Your task to perform on an android device: change alarm snooze length Image 0: 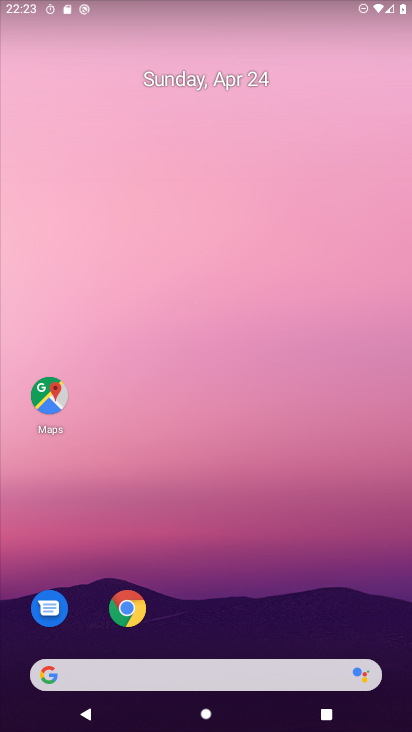
Step 0: drag from (320, 572) to (289, 2)
Your task to perform on an android device: change alarm snooze length Image 1: 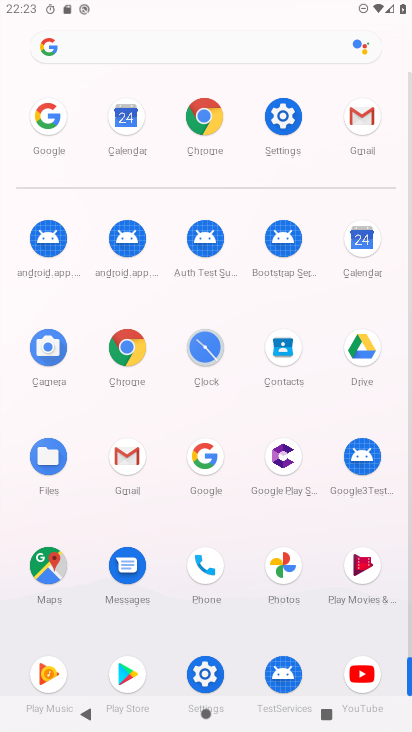
Step 1: click (215, 346)
Your task to perform on an android device: change alarm snooze length Image 2: 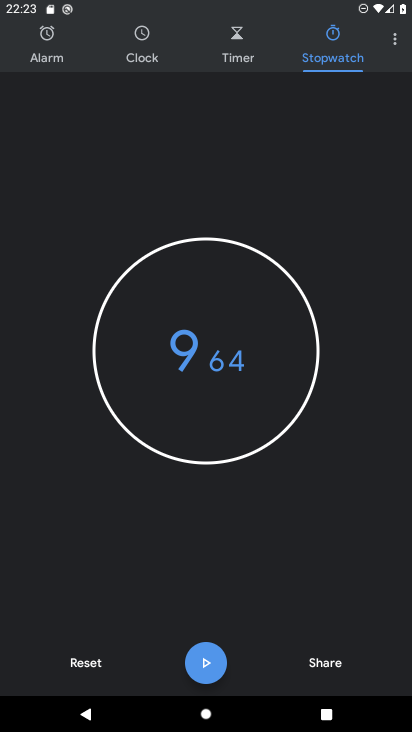
Step 2: click (394, 36)
Your task to perform on an android device: change alarm snooze length Image 3: 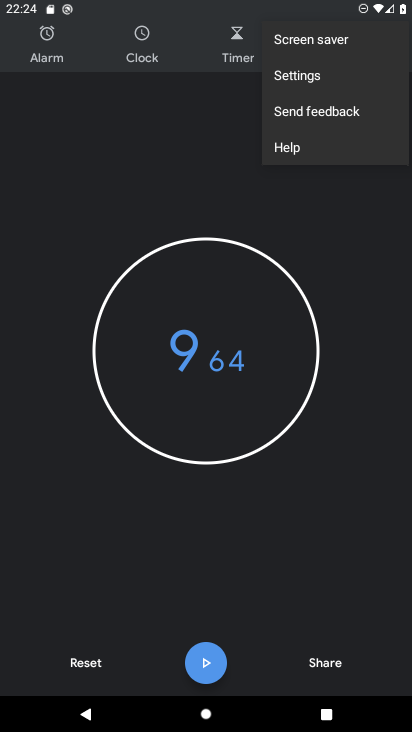
Step 3: click (351, 78)
Your task to perform on an android device: change alarm snooze length Image 4: 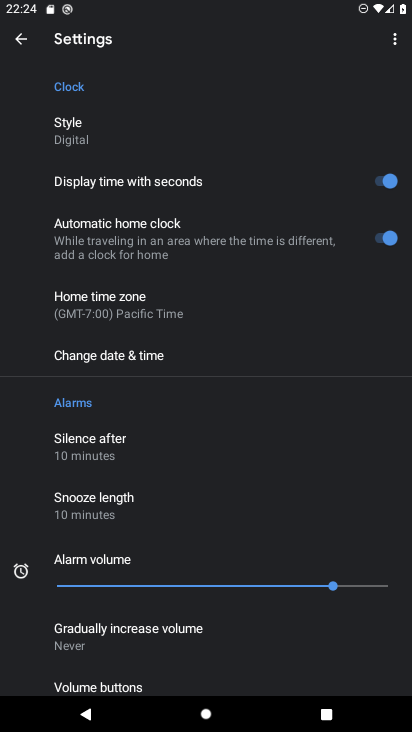
Step 4: click (157, 505)
Your task to perform on an android device: change alarm snooze length Image 5: 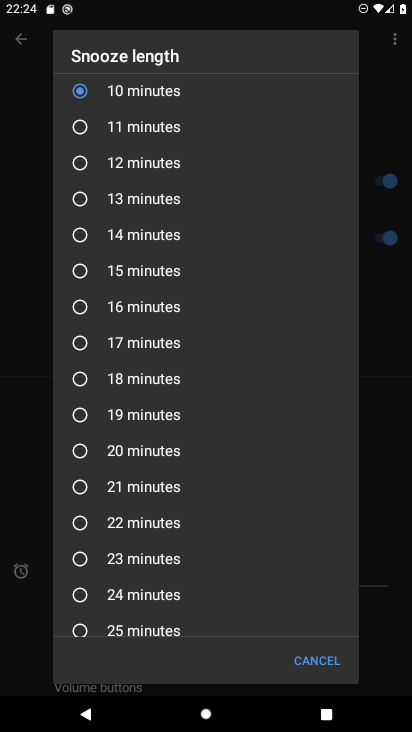
Step 5: click (82, 126)
Your task to perform on an android device: change alarm snooze length Image 6: 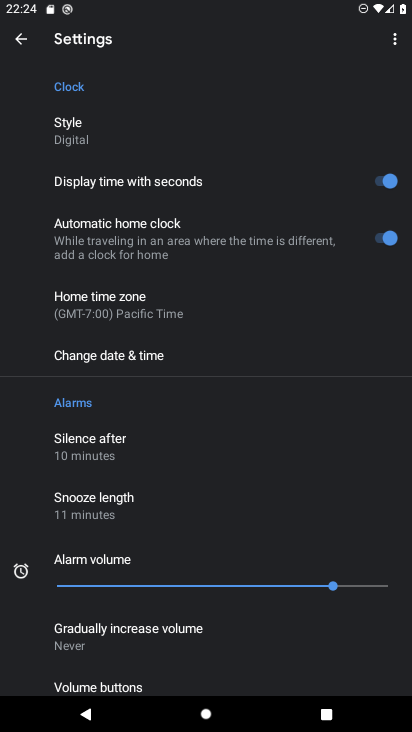
Step 6: task complete